Your task to perform on an android device: turn on sleep mode Image 0: 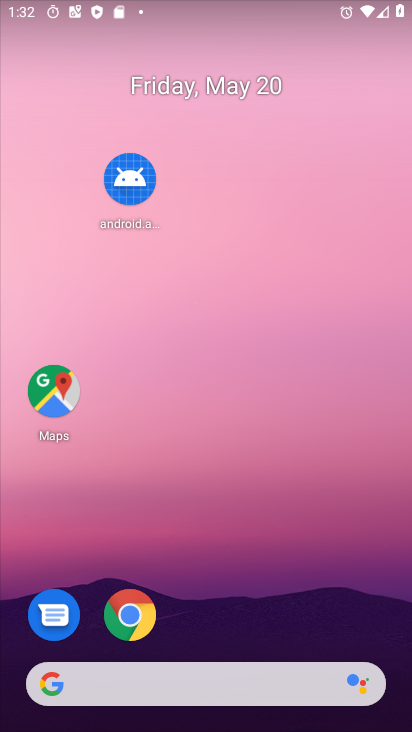
Step 0: drag from (318, 583) to (273, 112)
Your task to perform on an android device: turn on sleep mode Image 1: 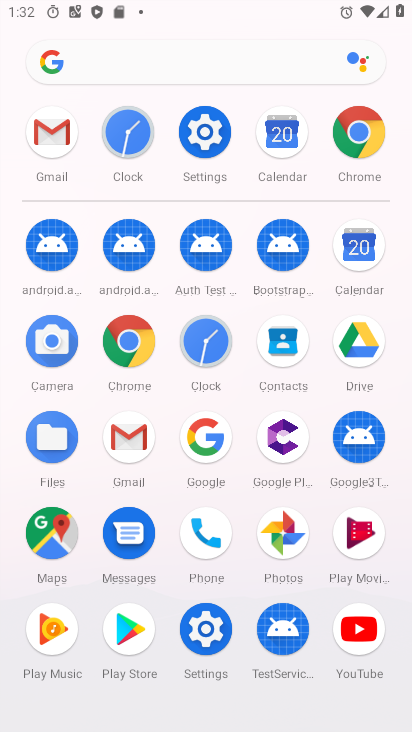
Step 1: click (207, 627)
Your task to perform on an android device: turn on sleep mode Image 2: 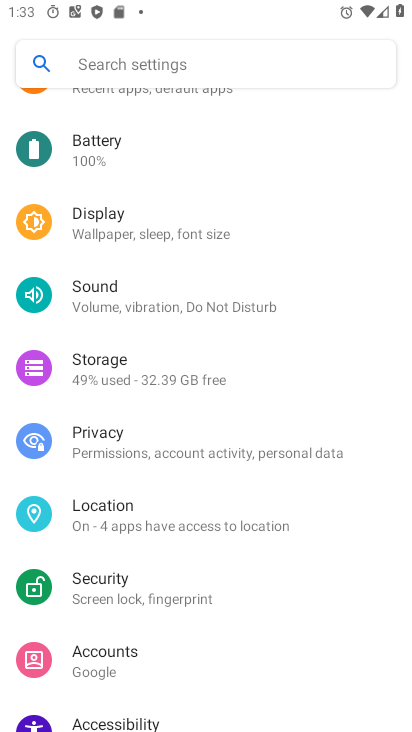
Step 2: click (223, 215)
Your task to perform on an android device: turn on sleep mode Image 3: 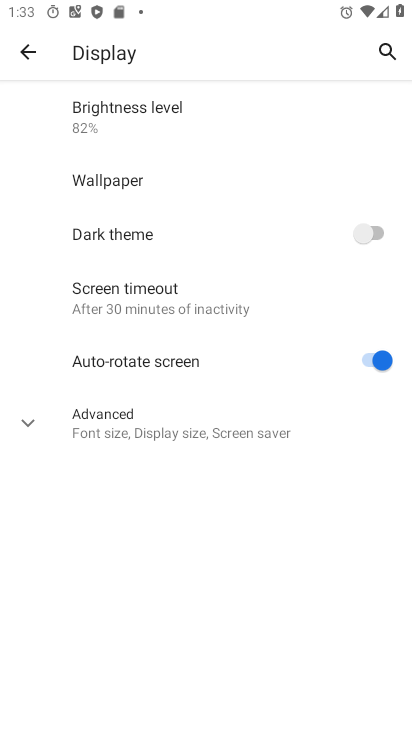
Step 3: click (80, 404)
Your task to perform on an android device: turn on sleep mode Image 4: 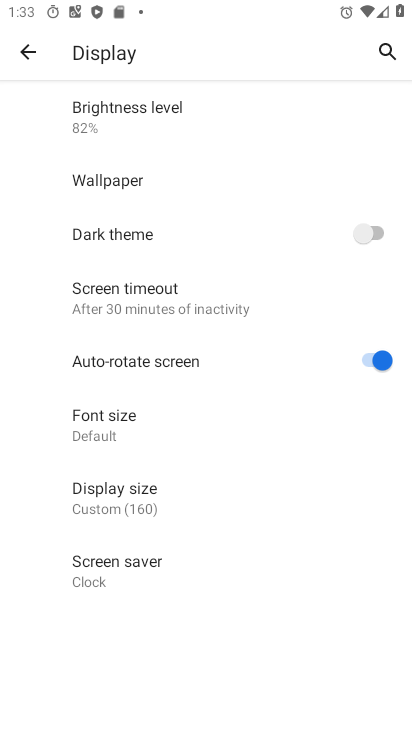
Step 4: task complete